Your task to perform on an android device: Open Chrome and go to settings Image 0: 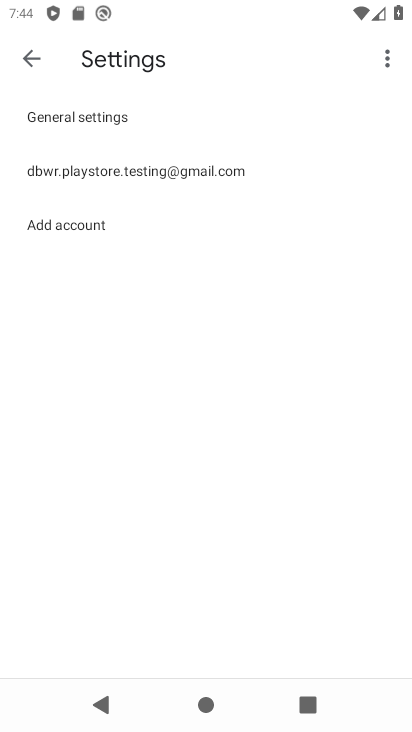
Step 0: press home button
Your task to perform on an android device: Open Chrome and go to settings Image 1: 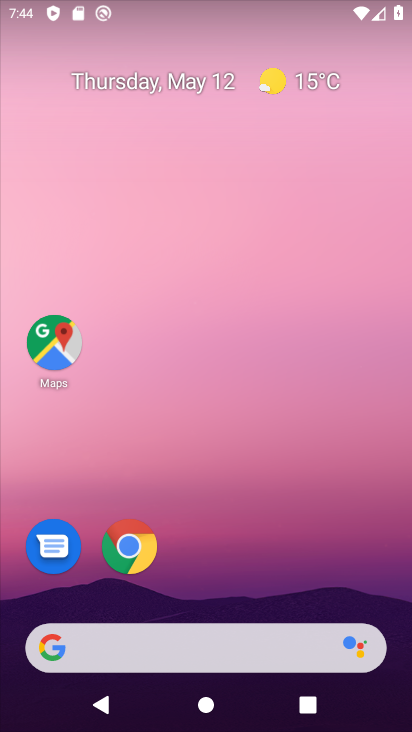
Step 1: click (129, 547)
Your task to perform on an android device: Open Chrome and go to settings Image 2: 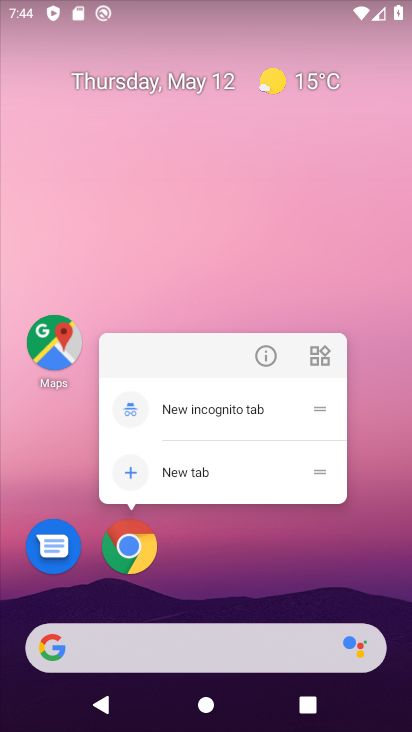
Step 2: click (138, 556)
Your task to perform on an android device: Open Chrome and go to settings Image 3: 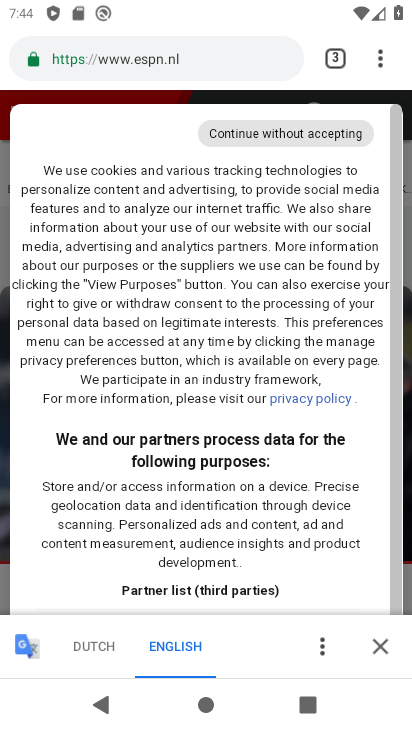
Step 3: task complete